Your task to perform on an android device: Go to accessibility settings Image 0: 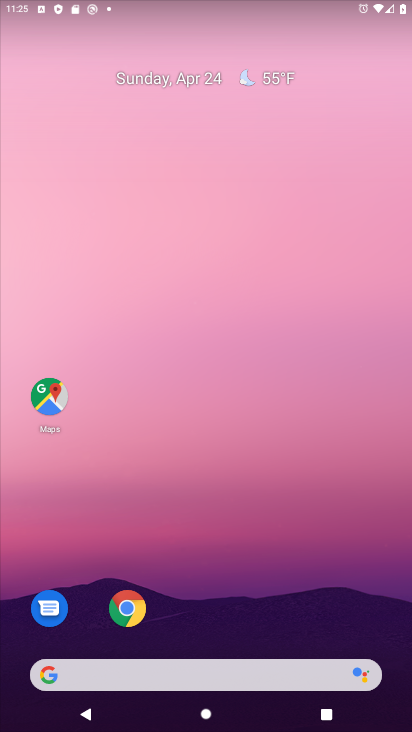
Step 0: drag from (381, 629) to (296, 62)
Your task to perform on an android device: Go to accessibility settings Image 1: 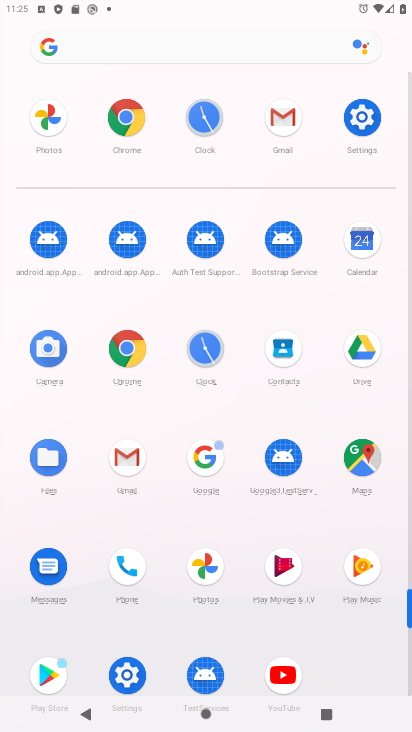
Step 1: click (409, 688)
Your task to perform on an android device: Go to accessibility settings Image 2: 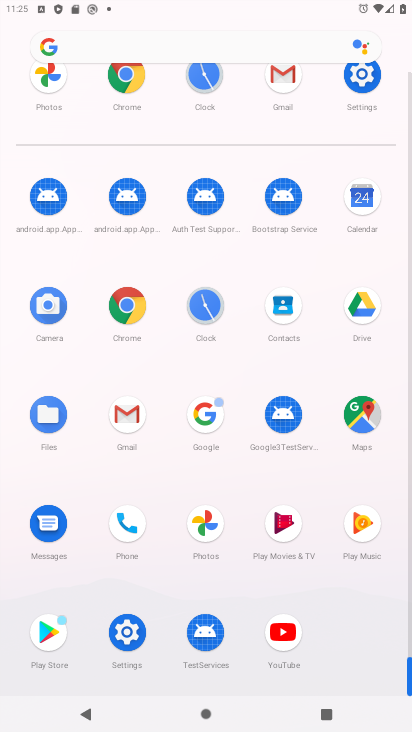
Step 2: click (127, 633)
Your task to perform on an android device: Go to accessibility settings Image 3: 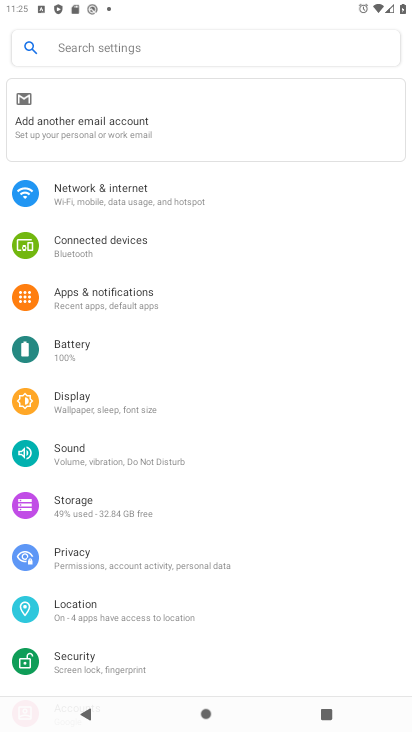
Step 3: drag from (242, 601) to (296, 207)
Your task to perform on an android device: Go to accessibility settings Image 4: 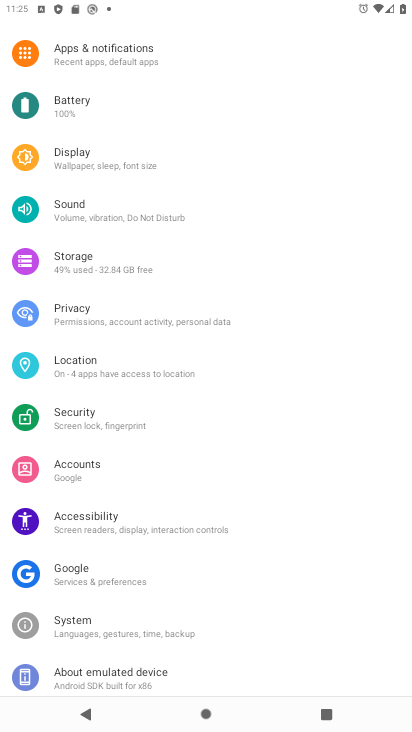
Step 4: click (82, 521)
Your task to perform on an android device: Go to accessibility settings Image 5: 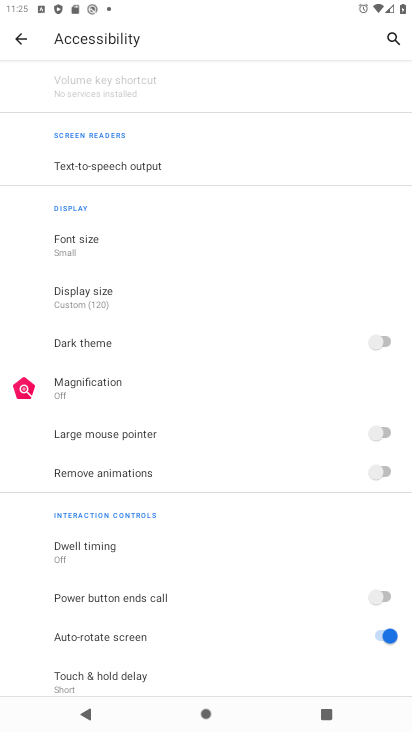
Step 5: task complete